Your task to perform on an android device: set default search engine in the chrome app Image 0: 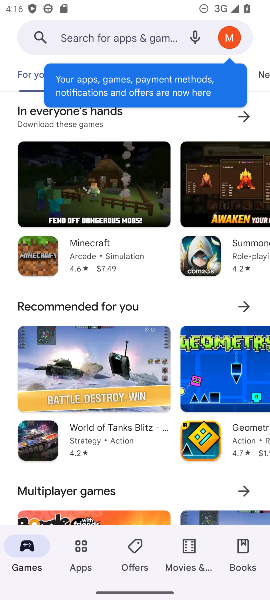
Step 0: press home button
Your task to perform on an android device: set default search engine in the chrome app Image 1: 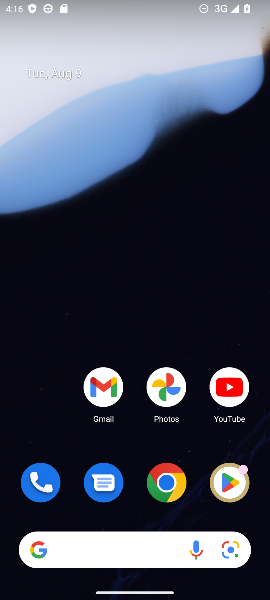
Step 1: click (155, 470)
Your task to perform on an android device: set default search engine in the chrome app Image 2: 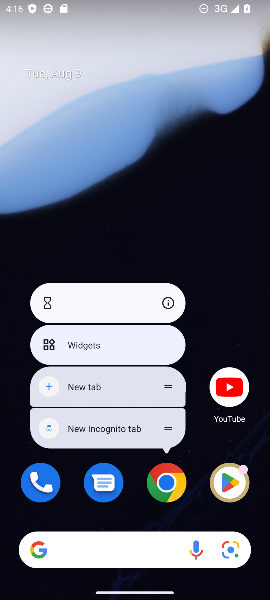
Step 2: click (179, 487)
Your task to perform on an android device: set default search engine in the chrome app Image 3: 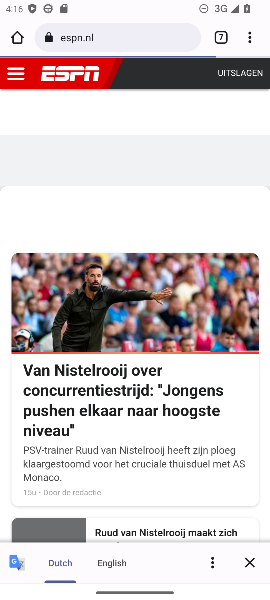
Step 3: click (246, 34)
Your task to perform on an android device: set default search engine in the chrome app Image 4: 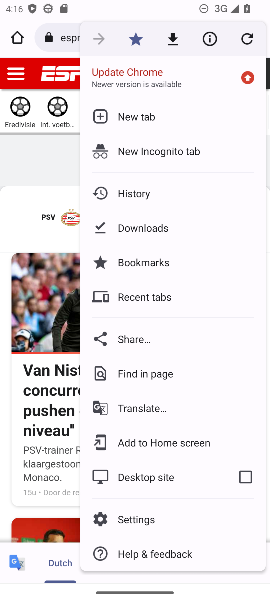
Step 4: click (146, 510)
Your task to perform on an android device: set default search engine in the chrome app Image 5: 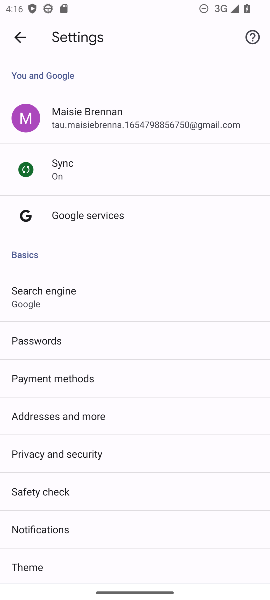
Step 5: click (103, 304)
Your task to perform on an android device: set default search engine in the chrome app Image 6: 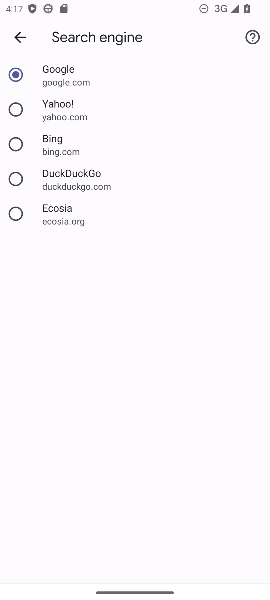
Step 6: task complete